Your task to perform on an android device: Find coffee shops on Maps Image 0: 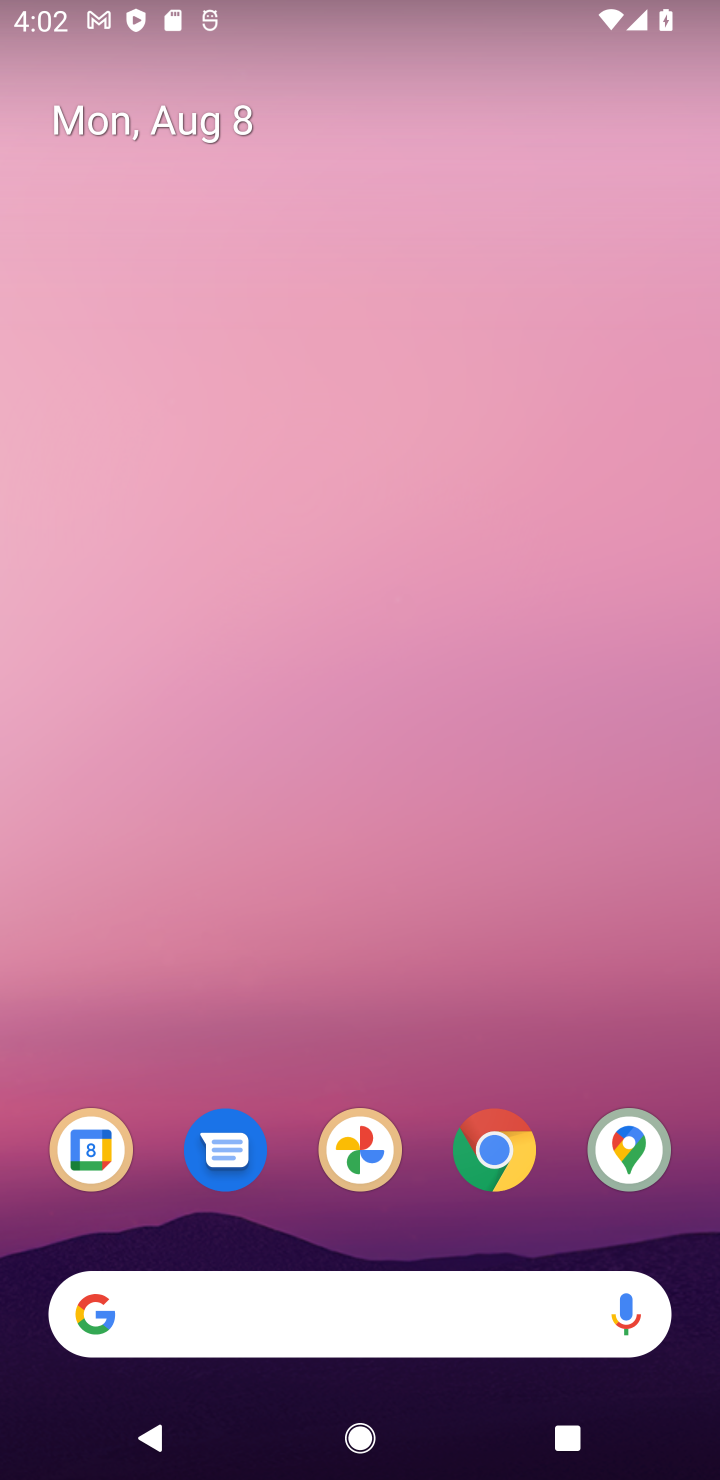
Step 0: click (613, 1150)
Your task to perform on an android device: Find coffee shops on Maps Image 1: 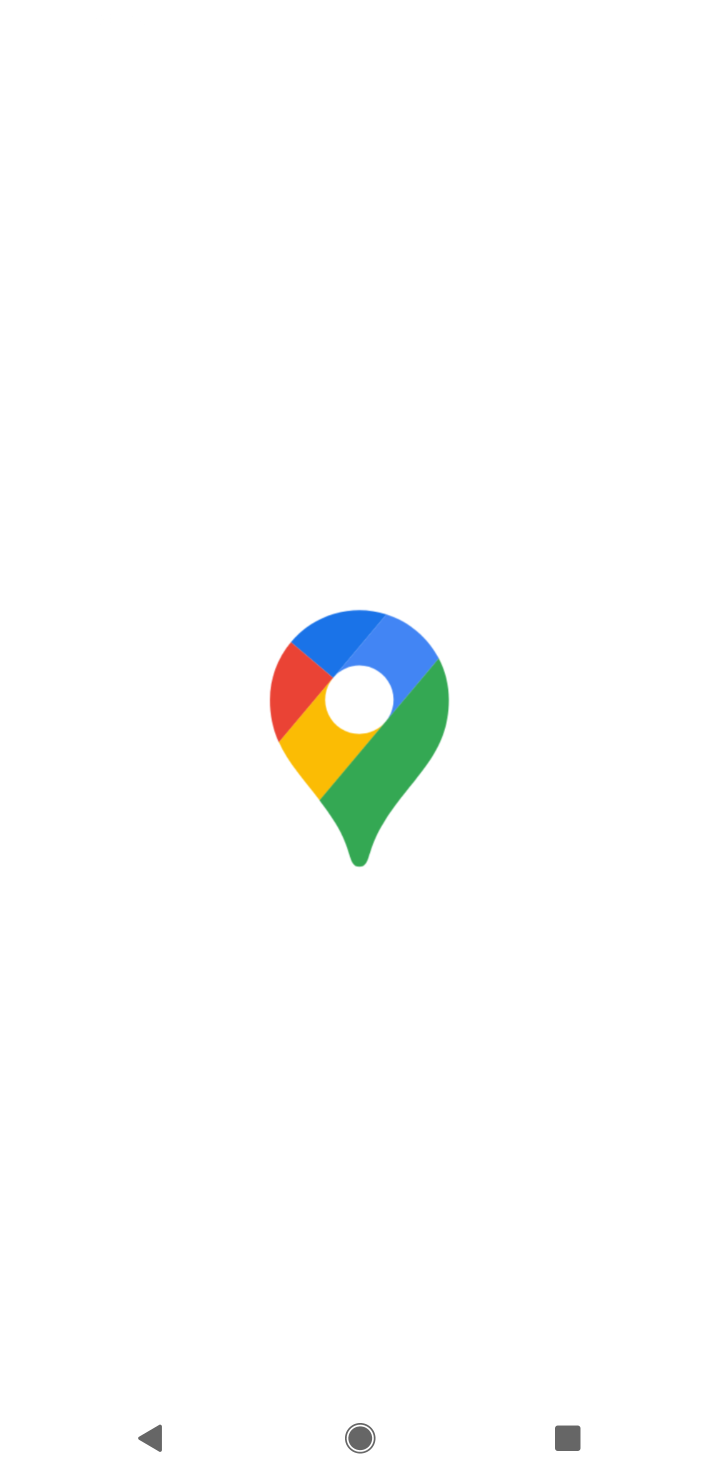
Step 1: task complete